Your task to perform on an android device: Open Google Maps and go to "Timeline" Image 0: 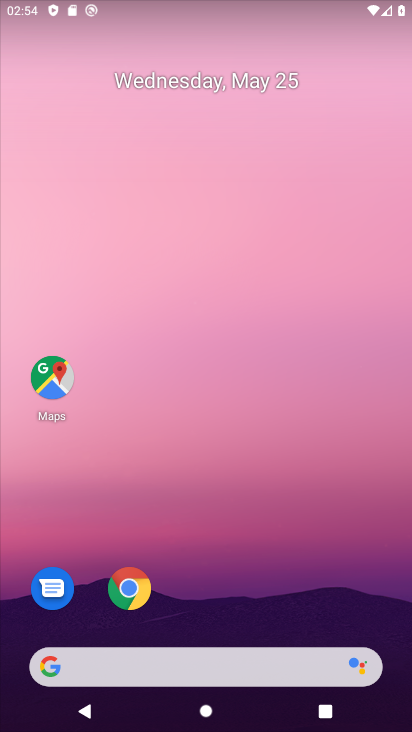
Step 0: click (56, 368)
Your task to perform on an android device: Open Google Maps and go to "Timeline" Image 1: 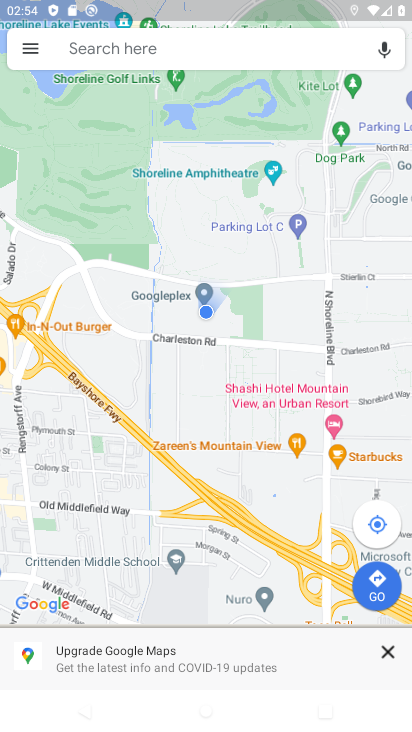
Step 1: click (29, 41)
Your task to perform on an android device: Open Google Maps and go to "Timeline" Image 2: 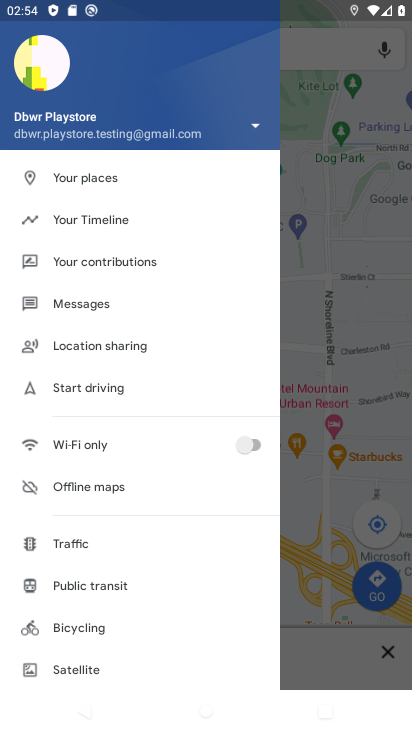
Step 2: click (77, 215)
Your task to perform on an android device: Open Google Maps and go to "Timeline" Image 3: 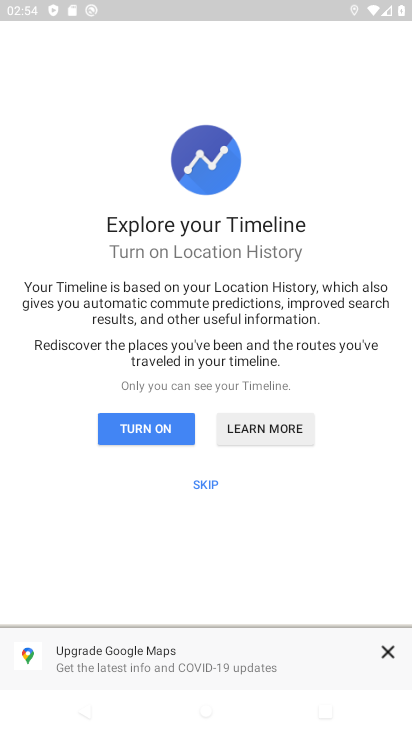
Step 3: click (203, 480)
Your task to perform on an android device: Open Google Maps and go to "Timeline" Image 4: 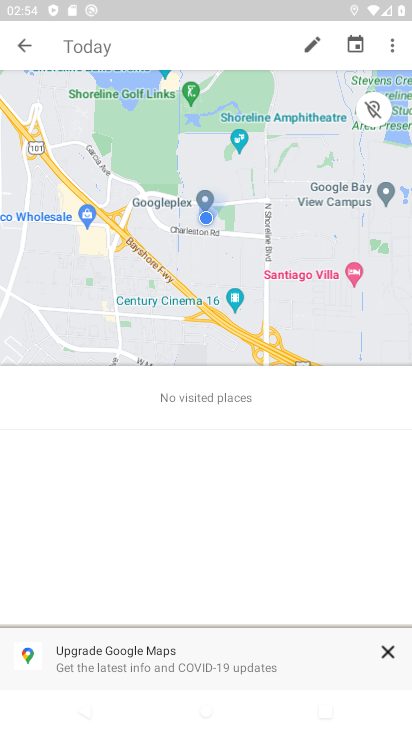
Step 4: task complete